Your task to perform on an android device: toggle wifi Image 0: 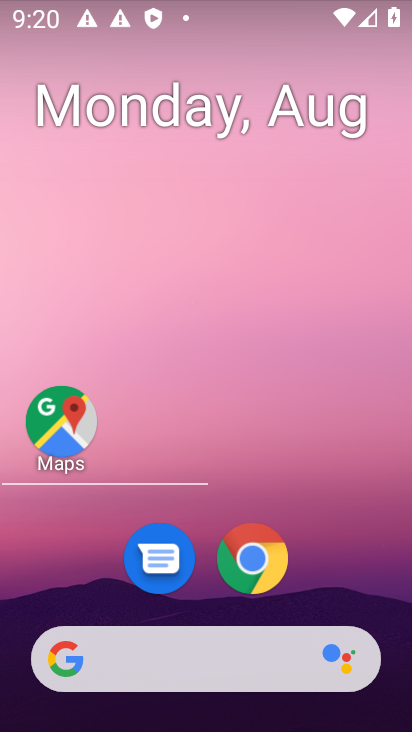
Step 0: press home button
Your task to perform on an android device: toggle wifi Image 1: 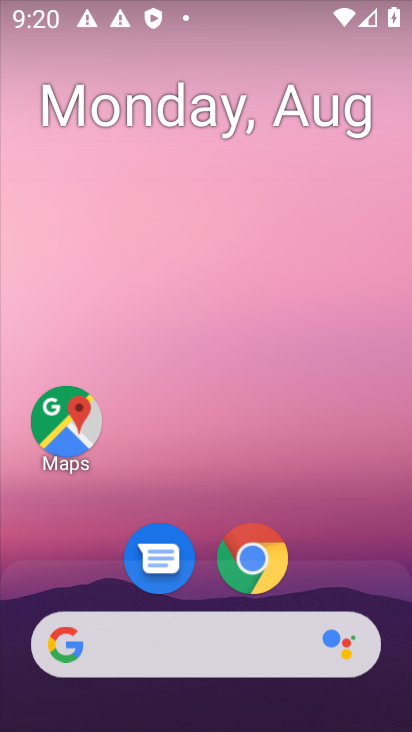
Step 1: drag from (313, 595) to (321, 66)
Your task to perform on an android device: toggle wifi Image 2: 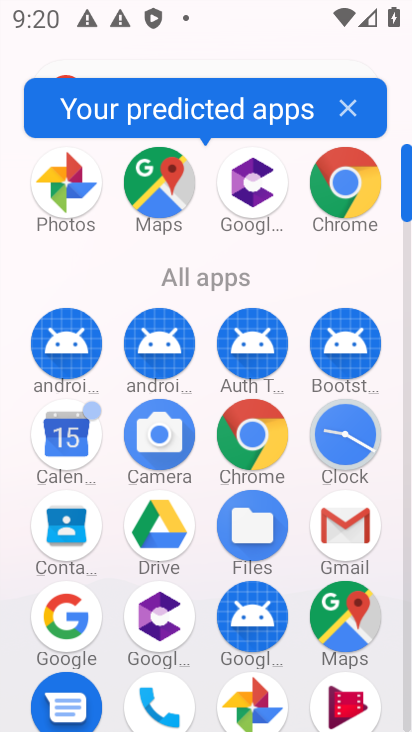
Step 2: drag from (200, 571) to (227, 70)
Your task to perform on an android device: toggle wifi Image 3: 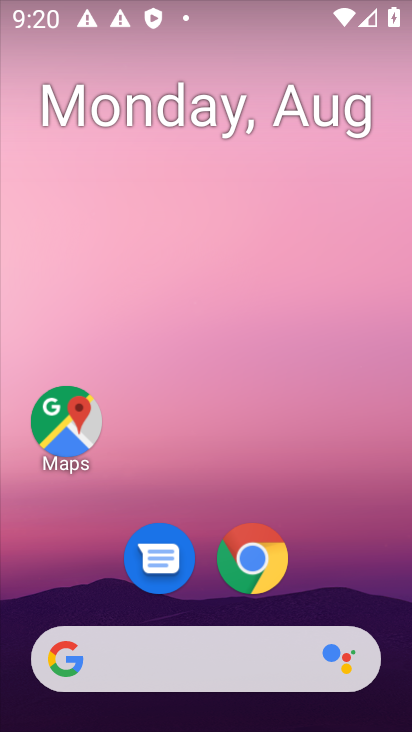
Step 3: drag from (366, 591) to (381, 16)
Your task to perform on an android device: toggle wifi Image 4: 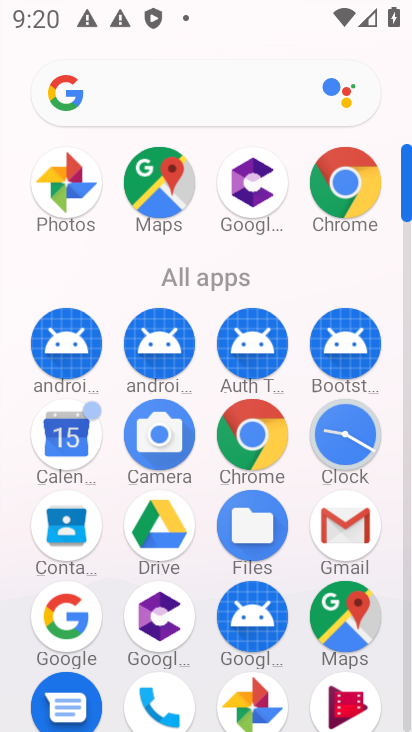
Step 4: drag from (380, 565) to (377, 58)
Your task to perform on an android device: toggle wifi Image 5: 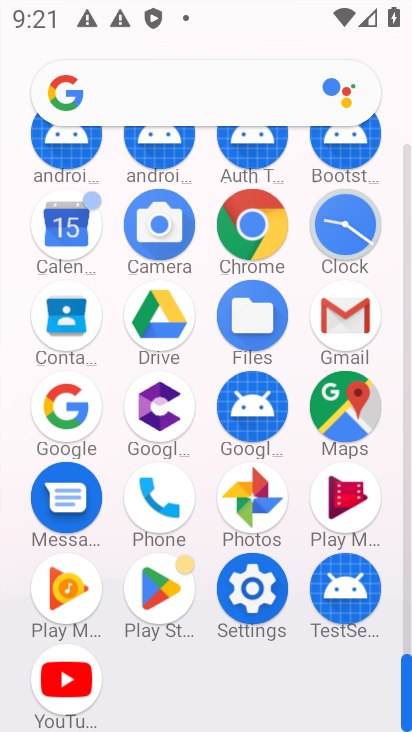
Step 5: click (247, 584)
Your task to perform on an android device: toggle wifi Image 6: 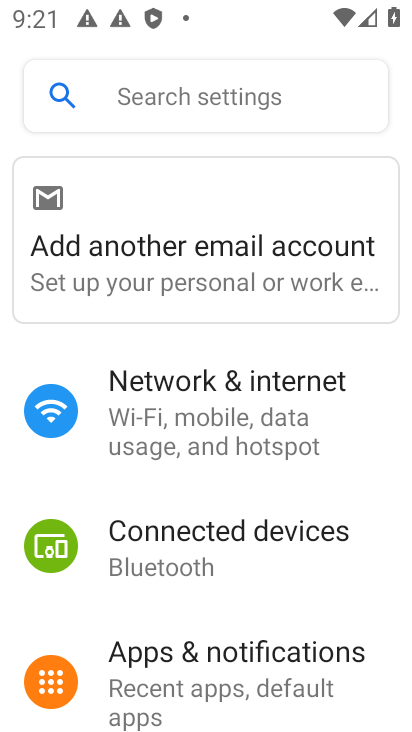
Step 6: click (218, 425)
Your task to perform on an android device: toggle wifi Image 7: 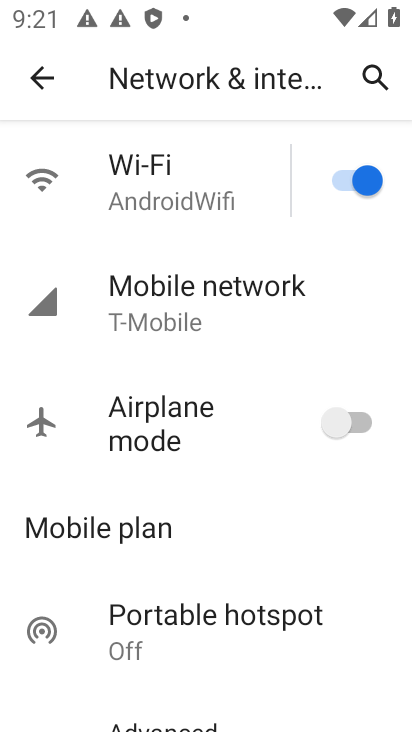
Step 7: click (199, 163)
Your task to perform on an android device: toggle wifi Image 8: 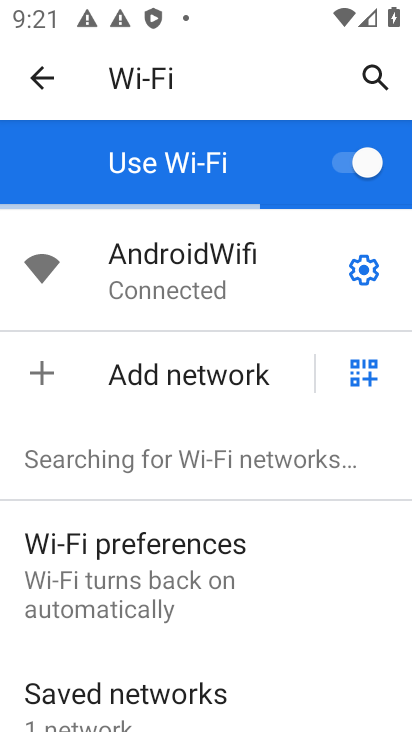
Step 8: task complete